Your task to perform on an android device: turn on location history Image 0: 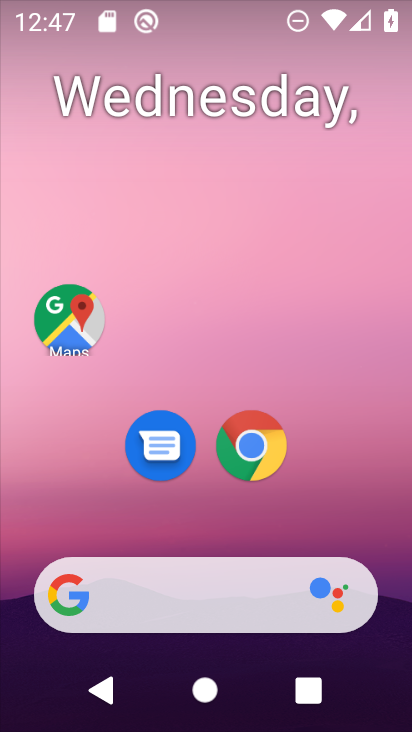
Step 0: drag from (375, 627) to (317, 45)
Your task to perform on an android device: turn on location history Image 1: 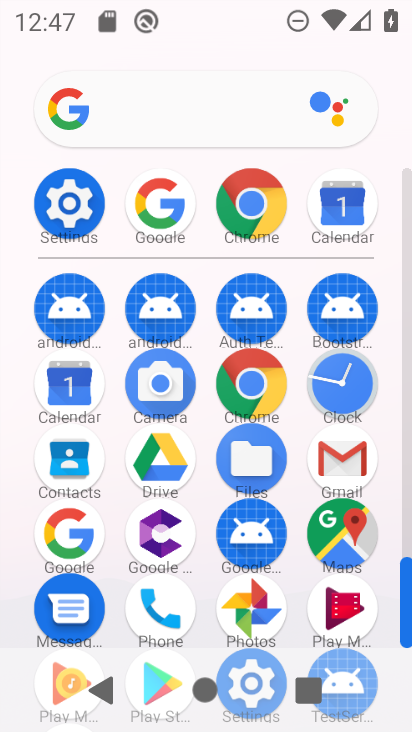
Step 1: click (66, 199)
Your task to perform on an android device: turn on location history Image 2: 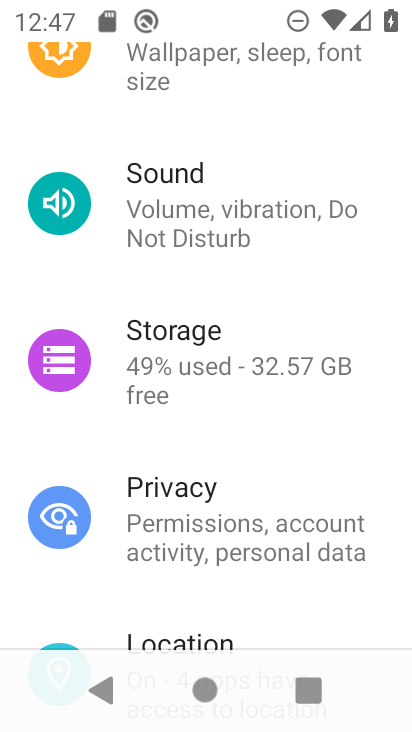
Step 2: click (268, 633)
Your task to perform on an android device: turn on location history Image 3: 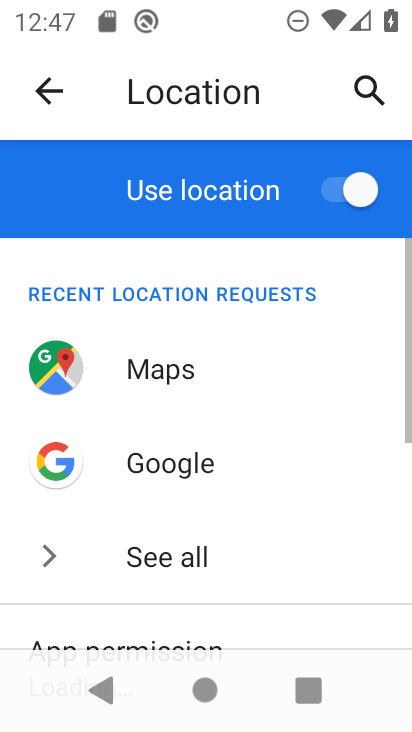
Step 3: drag from (242, 601) to (249, 86)
Your task to perform on an android device: turn on location history Image 4: 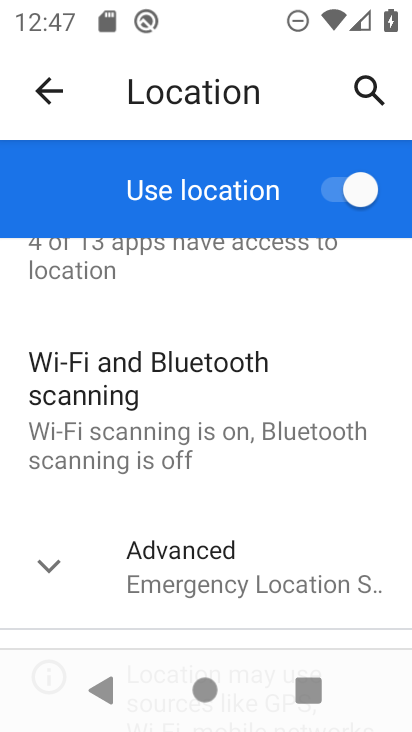
Step 4: click (59, 567)
Your task to perform on an android device: turn on location history Image 5: 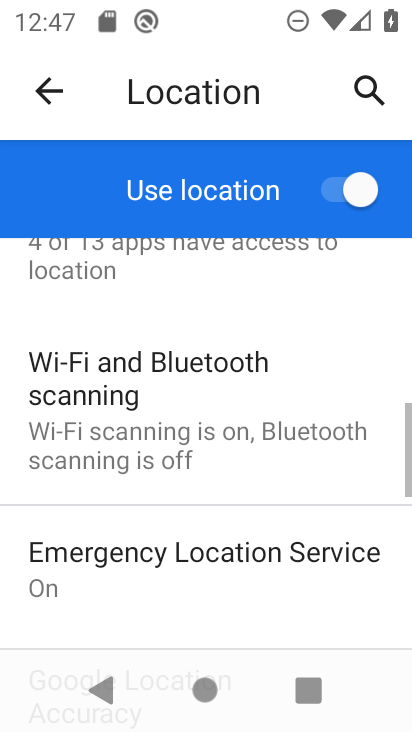
Step 5: drag from (147, 597) to (198, 245)
Your task to perform on an android device: turn on location history Image 6: 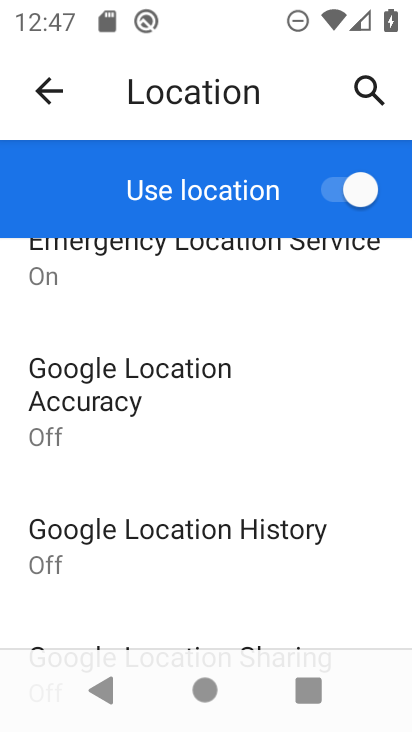
Step 6: click (164, 536)
Your task to perform on an android device: turn on location history Image 7: 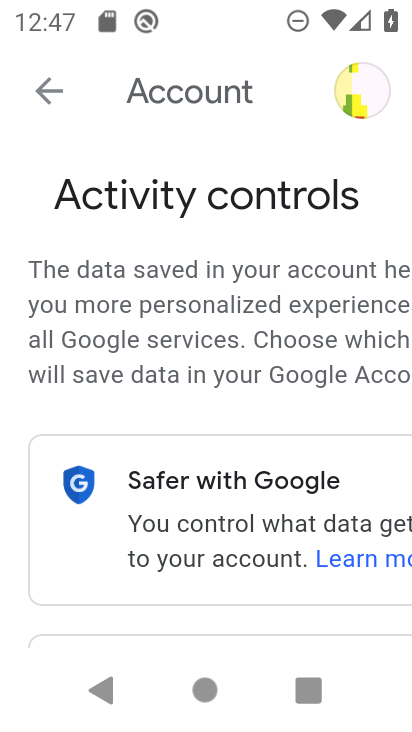
Step 7: task complete